Your task to perform on an android device: turn off location history Image 0: 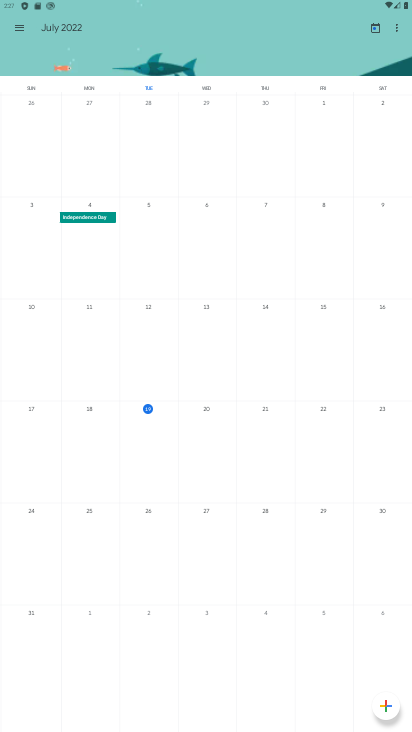
Step 0: press home button
Your task to perform on an android device: turn off location history Image 1: 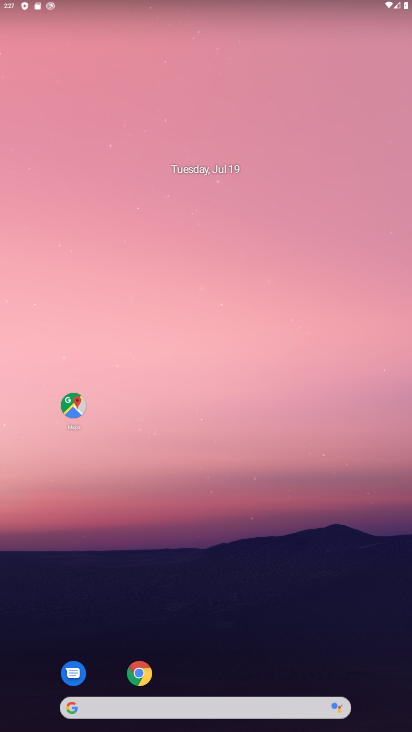
Step 1: drag from (201, 671) to (231, 289)
Your task to perform on an android device: turn off location history Image 2: 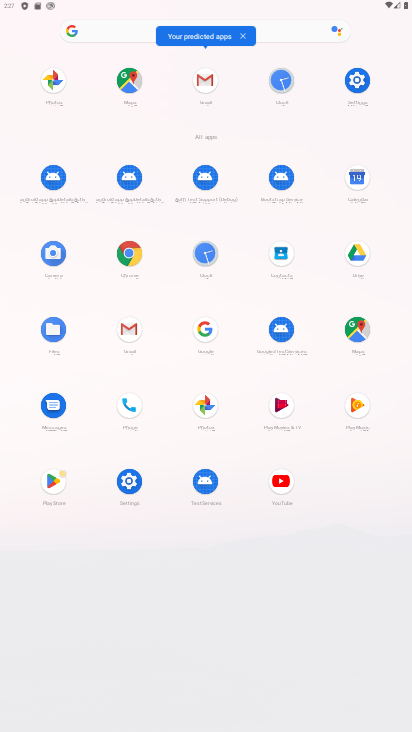
Step 2: click (137, 486)
Your task to perform on an android device: turn off location history Image 3: 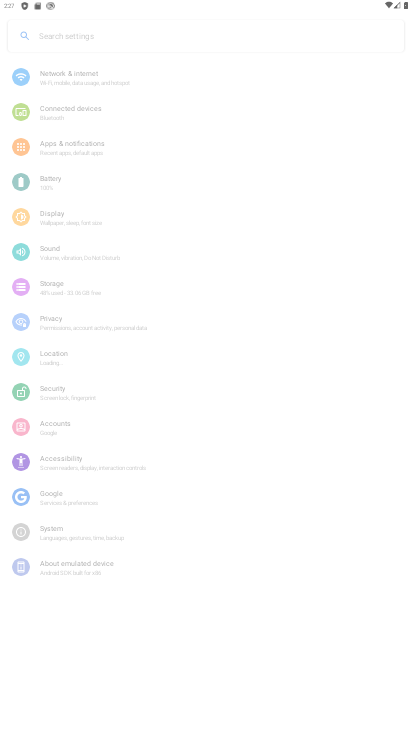
Step 3: click (137, 486)
Your task to perform on an android device: turn off location history Image 4: 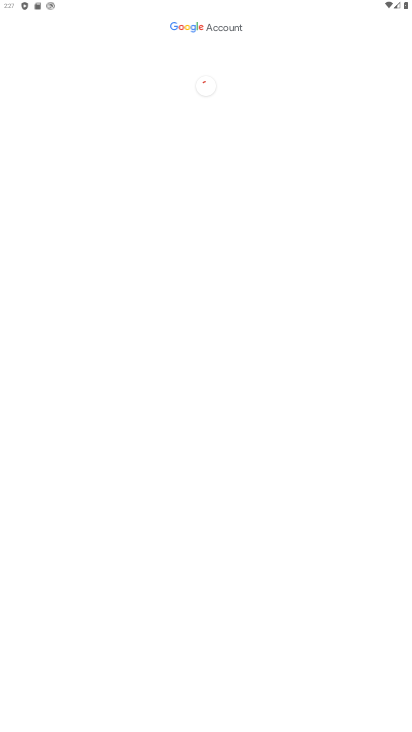
Step 4: press back button
Your task to perform on an android device: turn off location history Image 5: 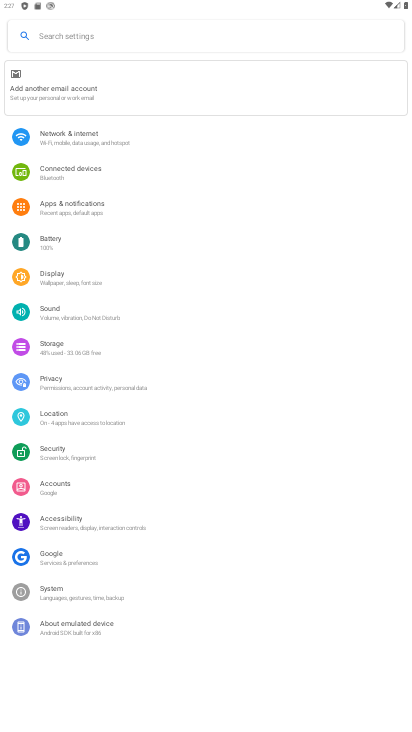
Step 5: click (76, 423)
Your task to perform on an android device: turn off location history Image 6: 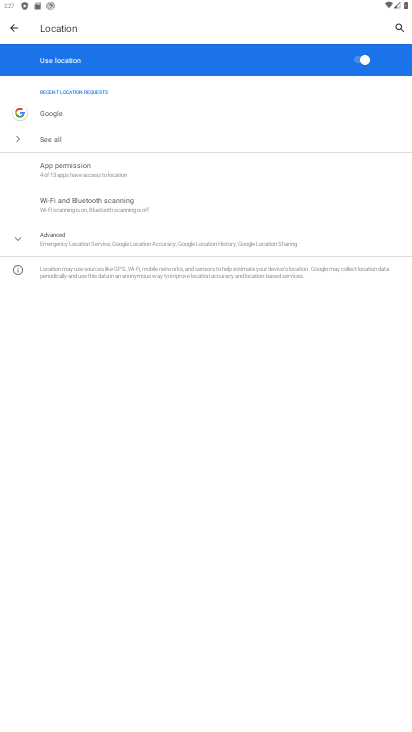
Step 6: click (164, 237)
Your task to perform on an android device: turn off location history Image 7: 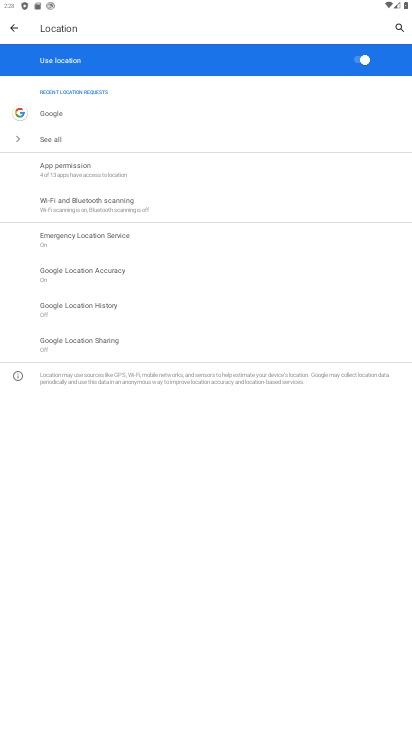
Step 7: click (143, 310)
Your task to perform on an android device: turn off location history Image 8: 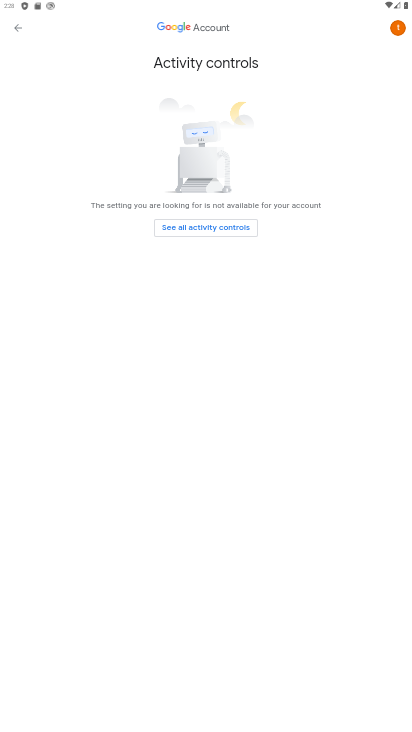
Step 8: task complete